Your task to perform on an android device: Go to CNN.com Image 0: 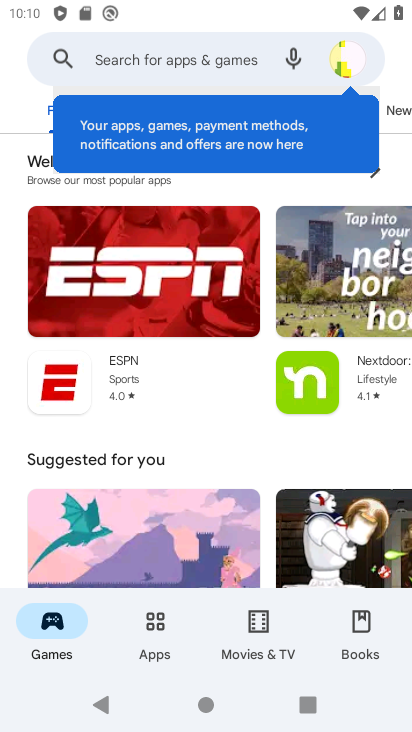
Step 0: press home button
Your task to perform on an android device: Go to CNN.com Image 1: 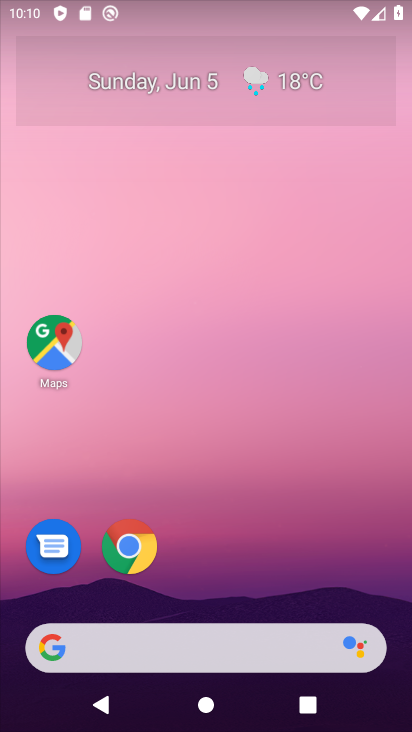
Step 1: click (133, 561)
Your task to perform on an android device: Go to CNN.com Image 2: 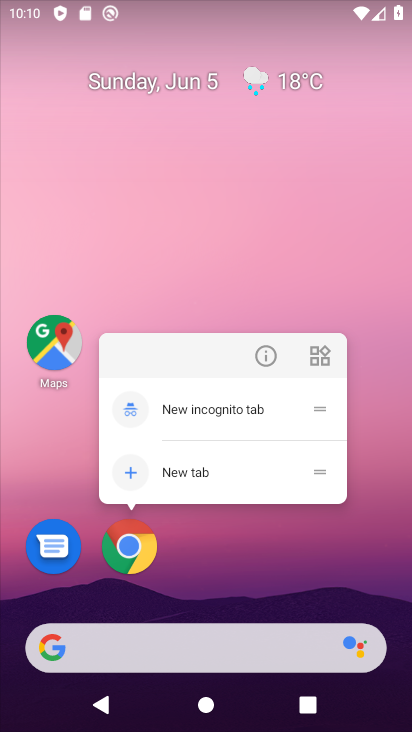
Step 2: click (144, 560)
Your task to perform on an android device: Go to CNN.com Image 3: 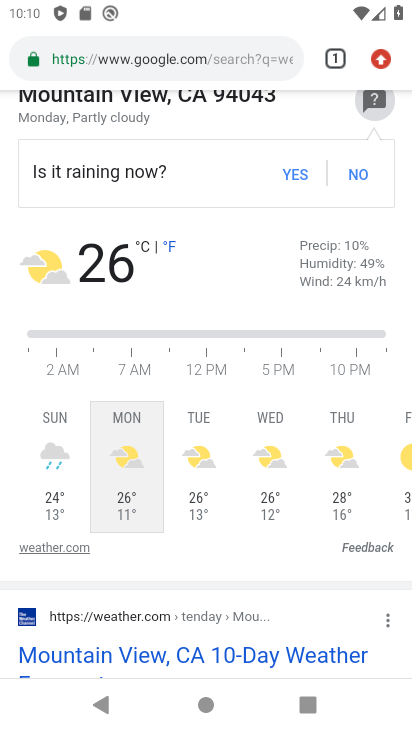
Step 3: click (333, 59)
Your task to perform on an android device: Go to CNN.com Image 4: 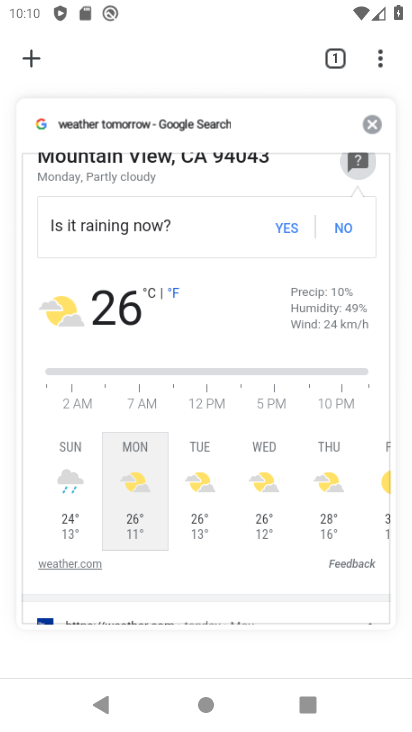
Step 4: click (370, 124)
Your task to perform on an android device: Go to CNN.com Image 5: 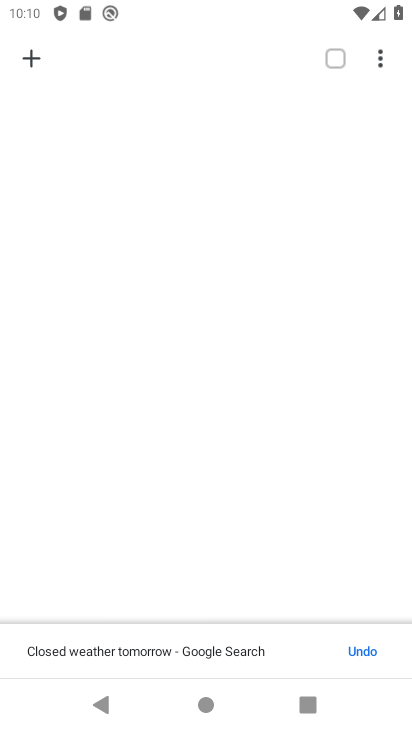
Step 5: click (30, 55)
Your task to perform on an android device: Go to CNN.com Image 6: 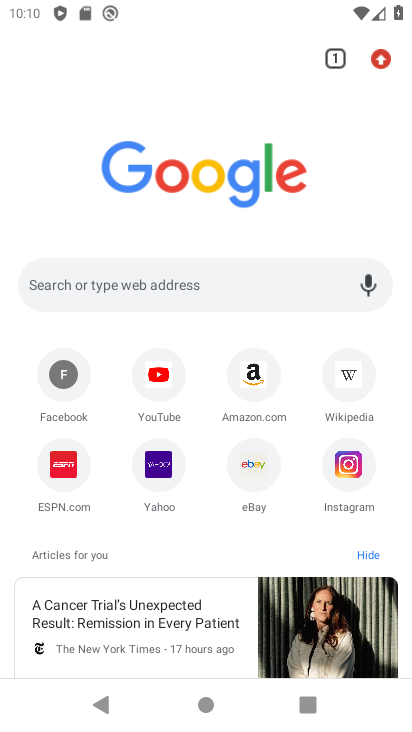
Step 6: click (231, 297)
Your task to perform on an android device: Go to CNN.com Image 7: 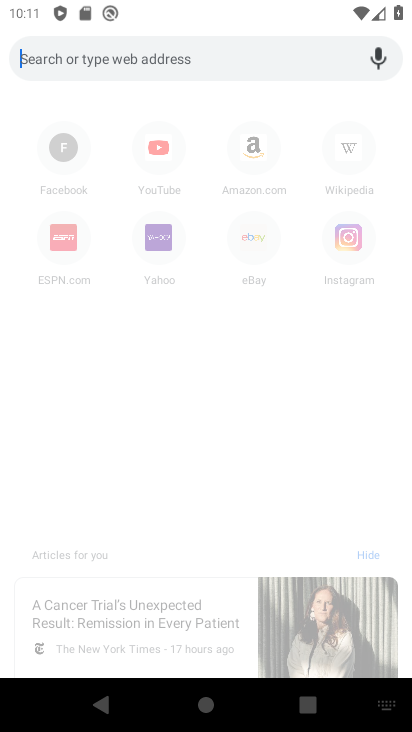
Step 7: type "cnn.com"
Your task to perform on an android device: Go to CNN.com Image 8: 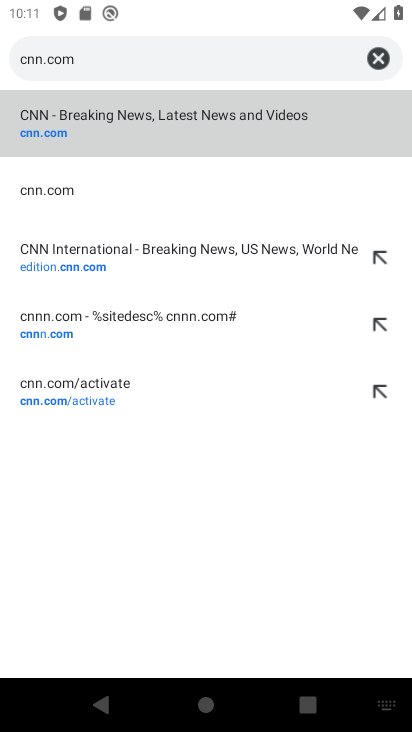
Step 8: click (143, 143)
Your task to perform on an android device: Go to CNN.com Image 9: 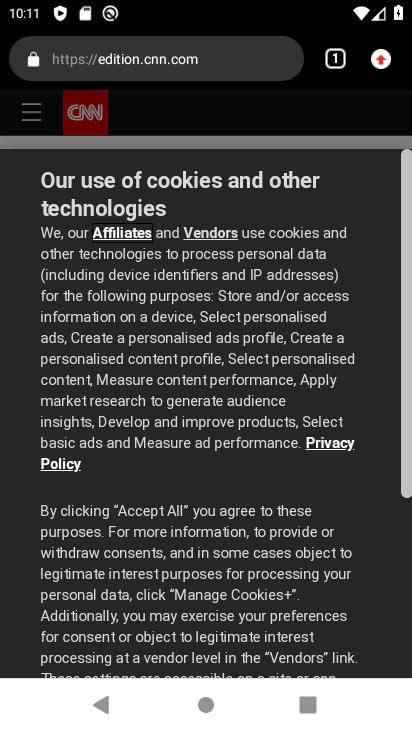
Step 9: drag from (404, 479) to (389, 629)
Your task to perform on an android device: Go to CNN.com Image 10: 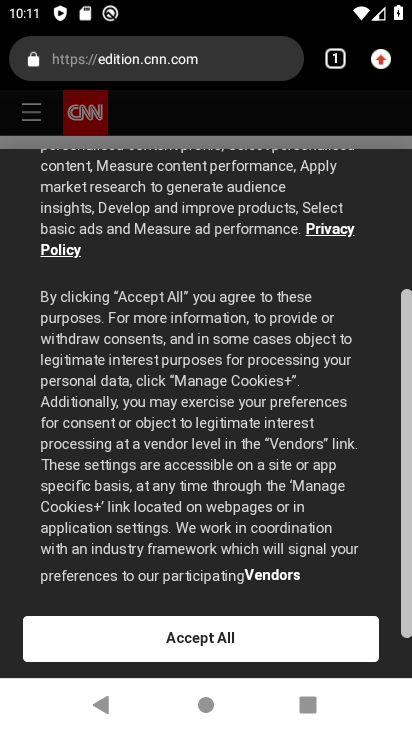
Step 10: click (268, 644)
Your task to perform on an android device: Go to CNN.com Image 11: 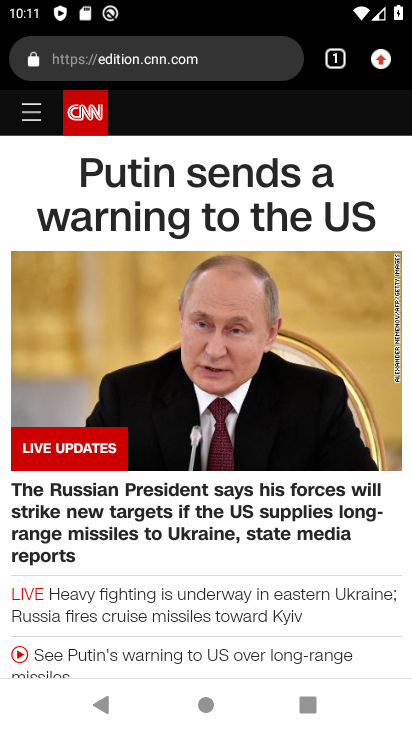
Step 11: task complete